Your task to perform on an android device: Find coffee shops on Maps Image 0: 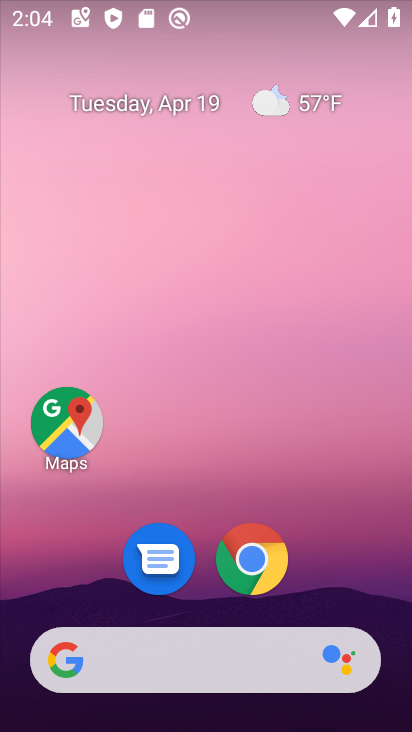
Step 0: drag from (198, 398) to (203, 84)
Your task to perform on an android device: Find coffee shops on Maps Image 1: 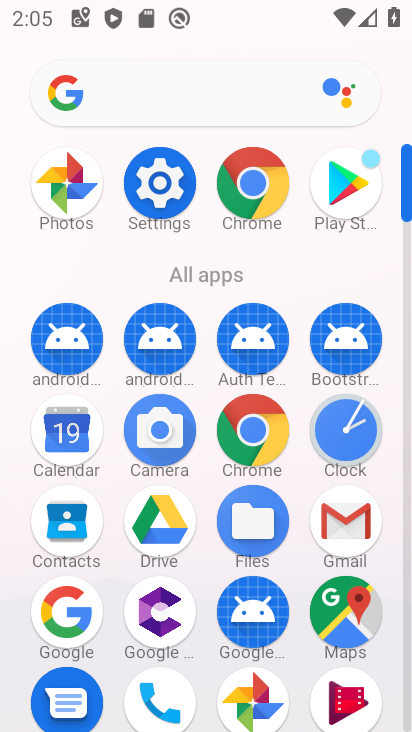
Step 1: click (345, 610)
Your task to perform on an android device: Find coffee shops on Maps Image 2: 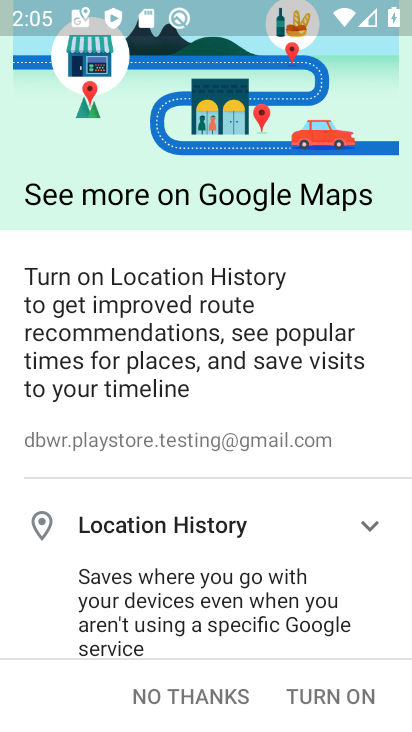
Step 2: click (197, 693)
Your task to perform on an android device: Find coffee shops on Maps Image 3: 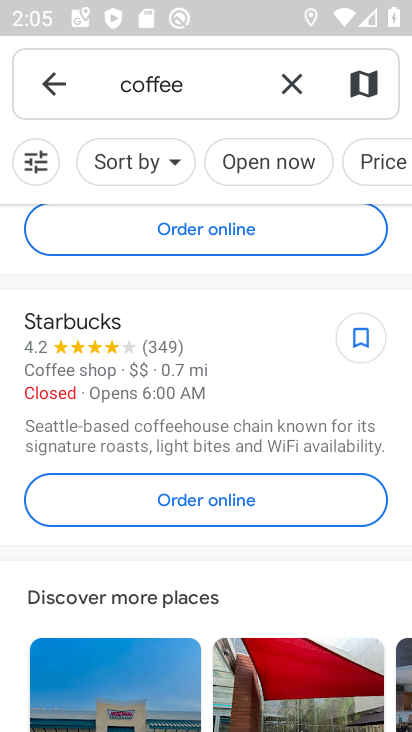
Step 3: task complete